Your task to perform on an android device: show emergency info Image 0: 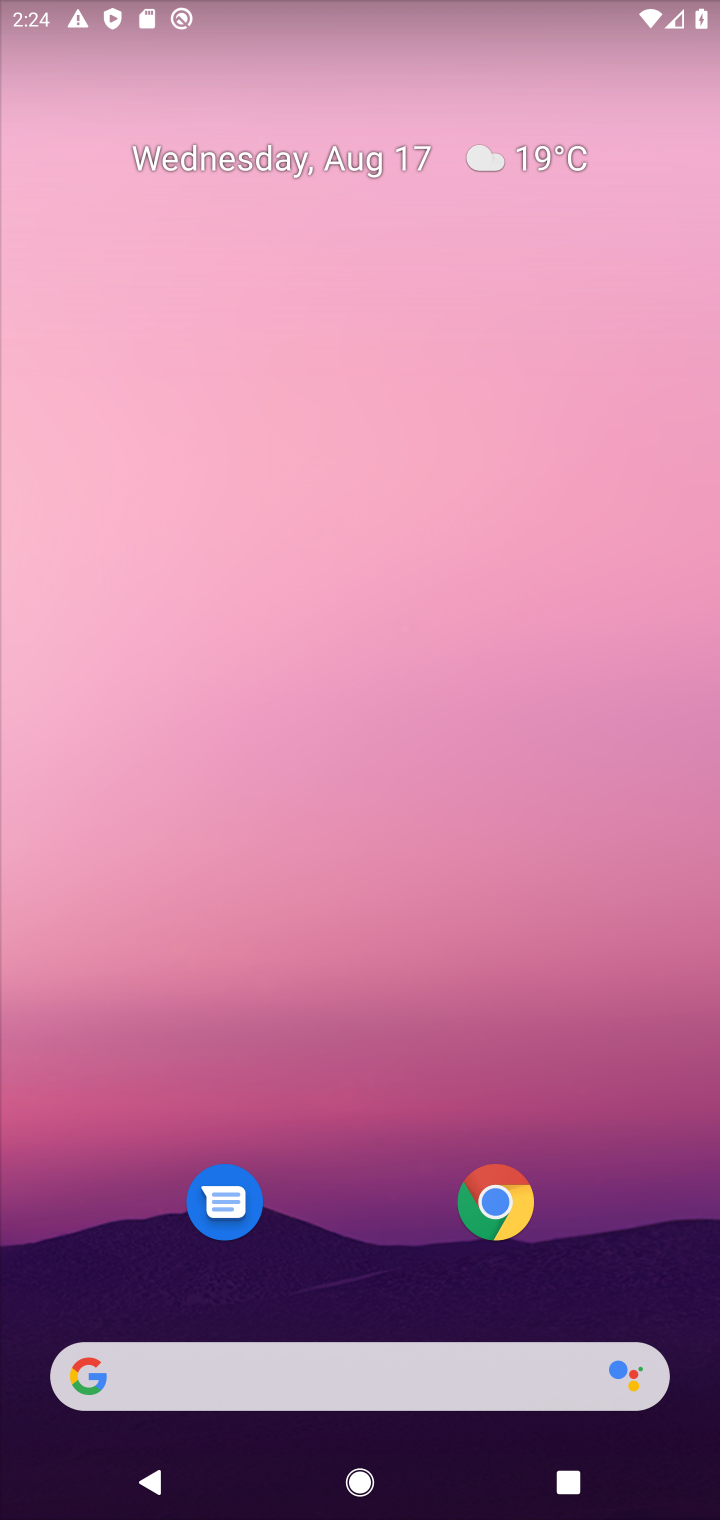
Step 0: drag from (348, 1279) to (311, 75)
Your task to perform on an android device: show emergency info Image 1: 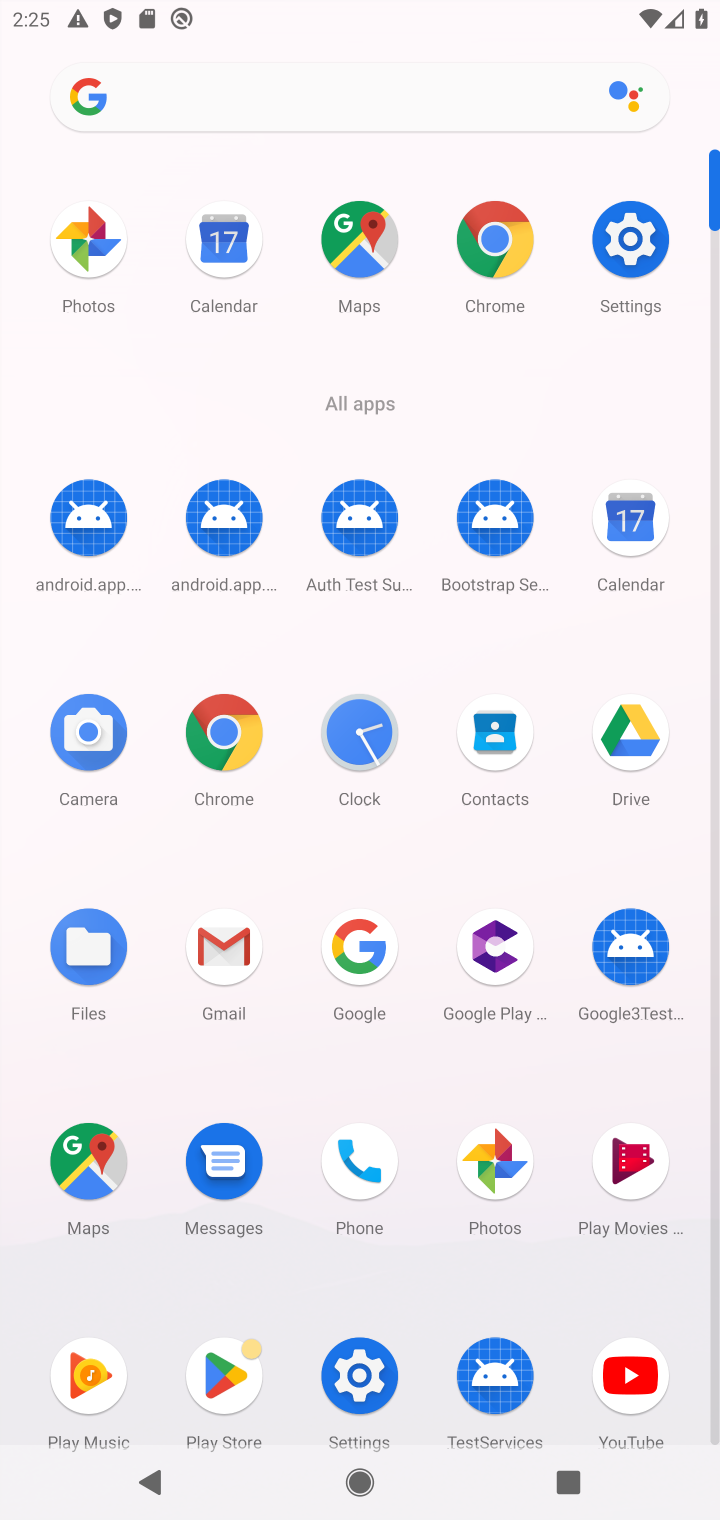
Step 1: drag from (267, 1240) to (361, 397)
Your task to perform on an android device: show emergency info Image 2: 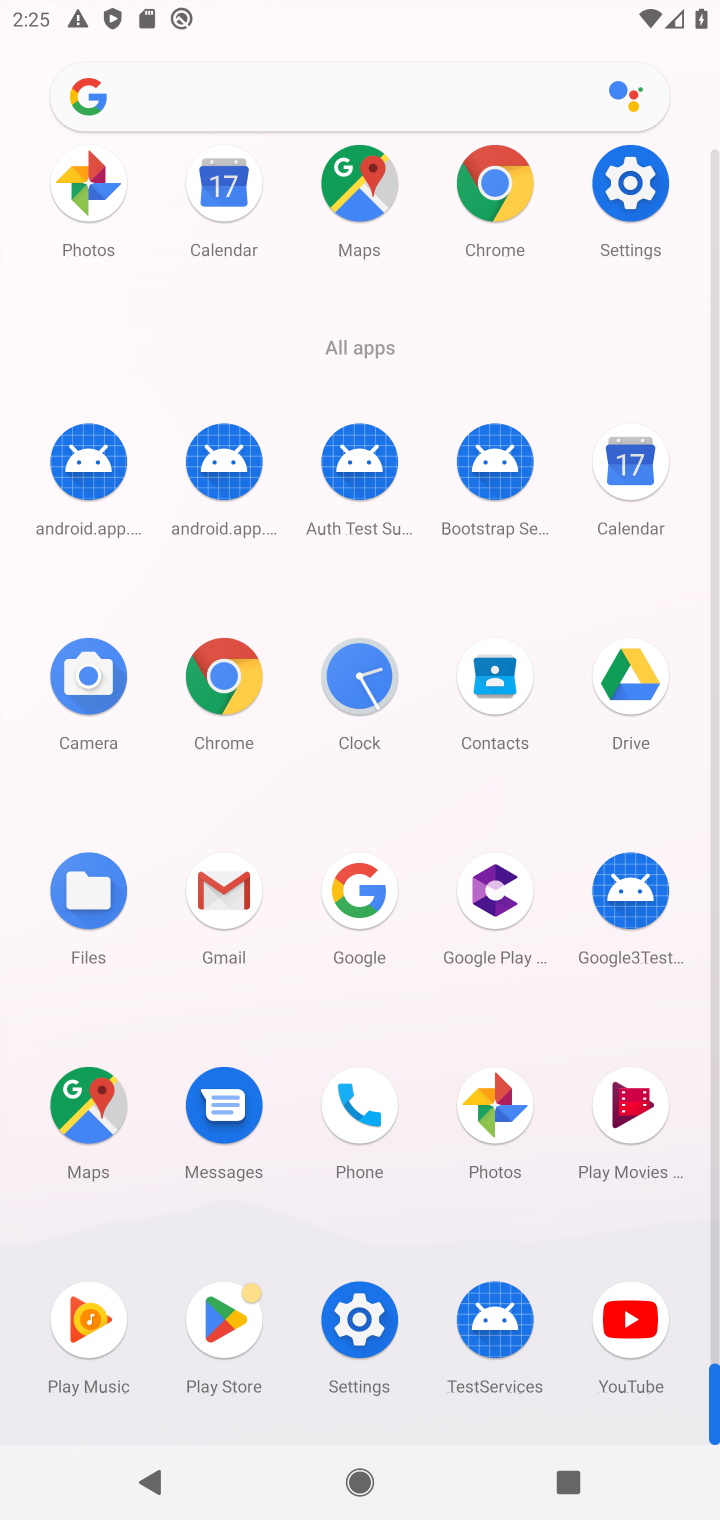
Step 2: click (350, 1317)
Your task to perform on an android device: show emergency info Image 3: 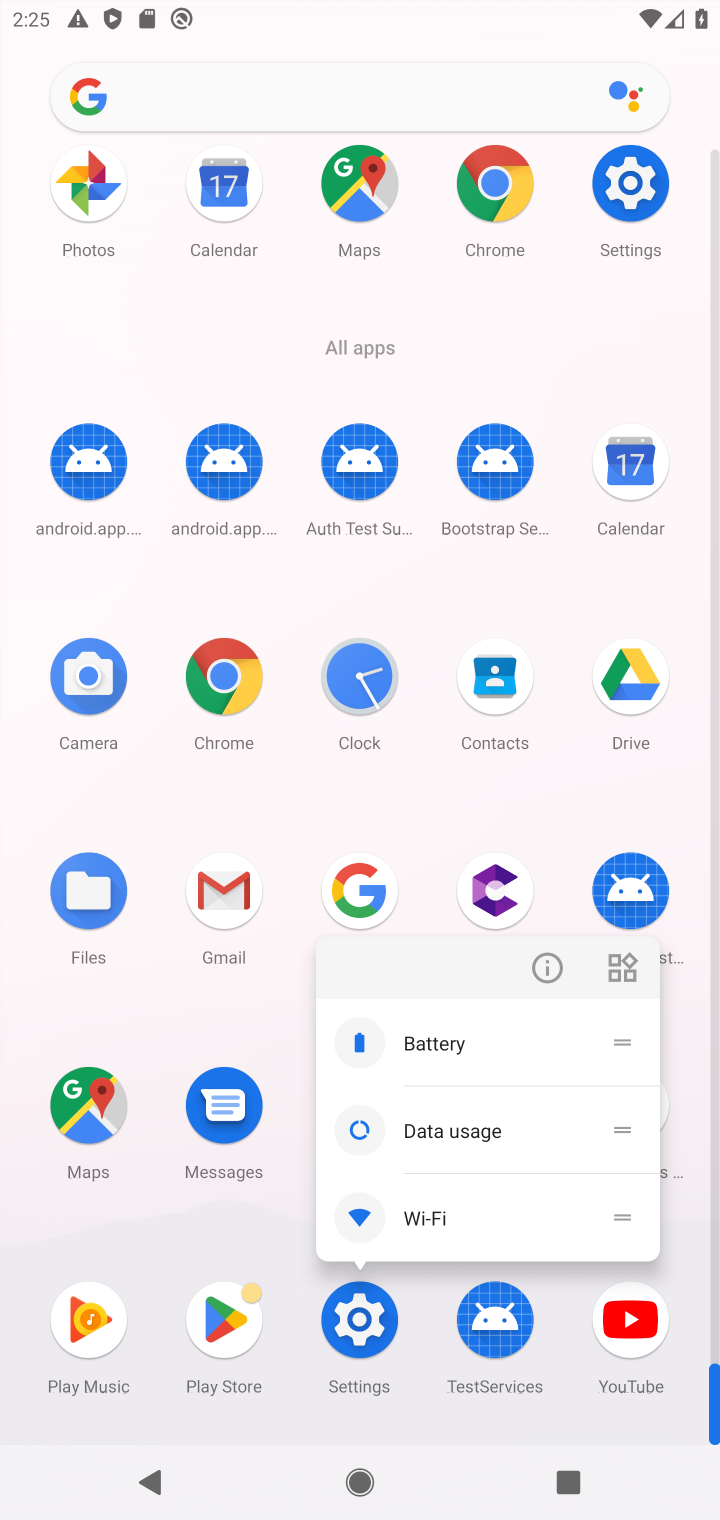
Step 3: click (358, 1336)
Your task to perform on an android device: show emergency info Image 4: 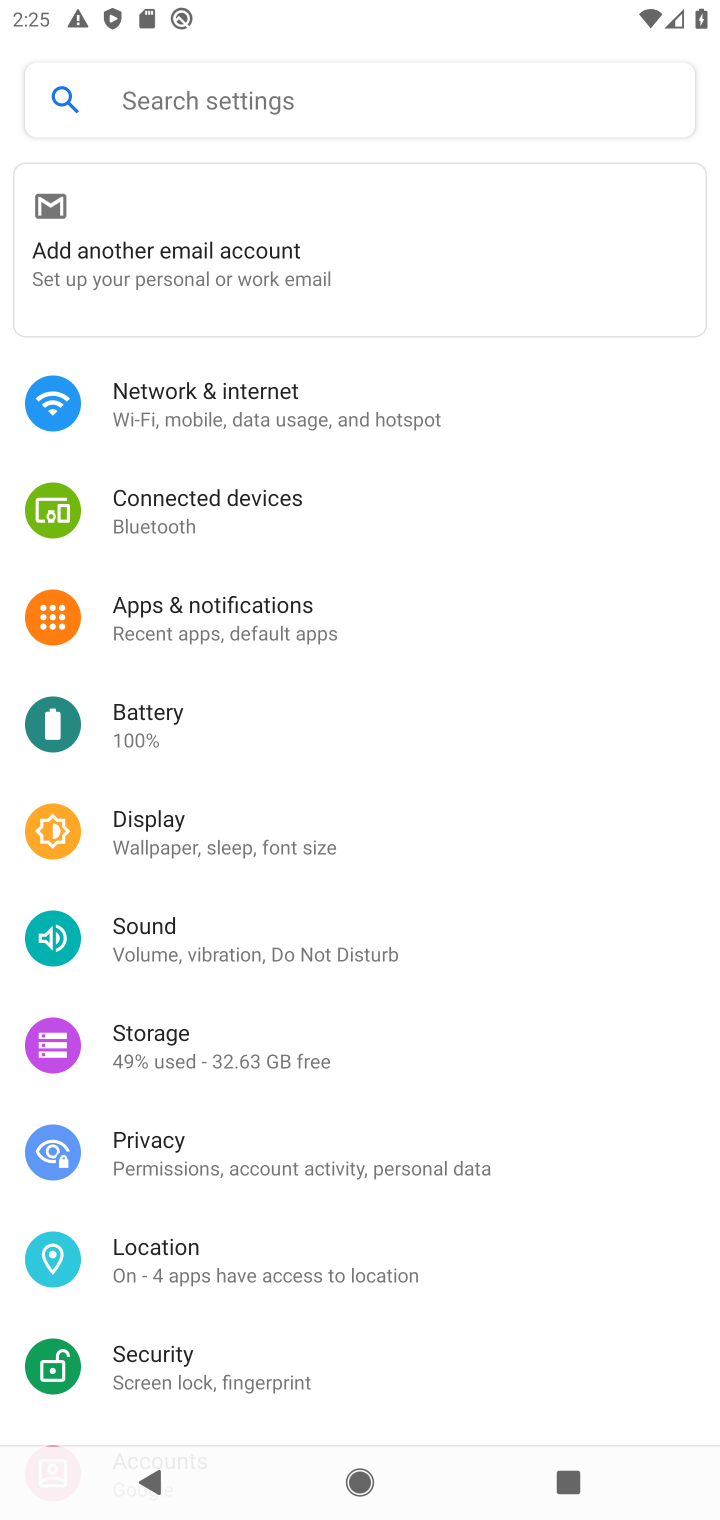
Step 4: drag from (208, 1294) to (298, 394)
Your task to perform on an android device: show emergency info Image 5: 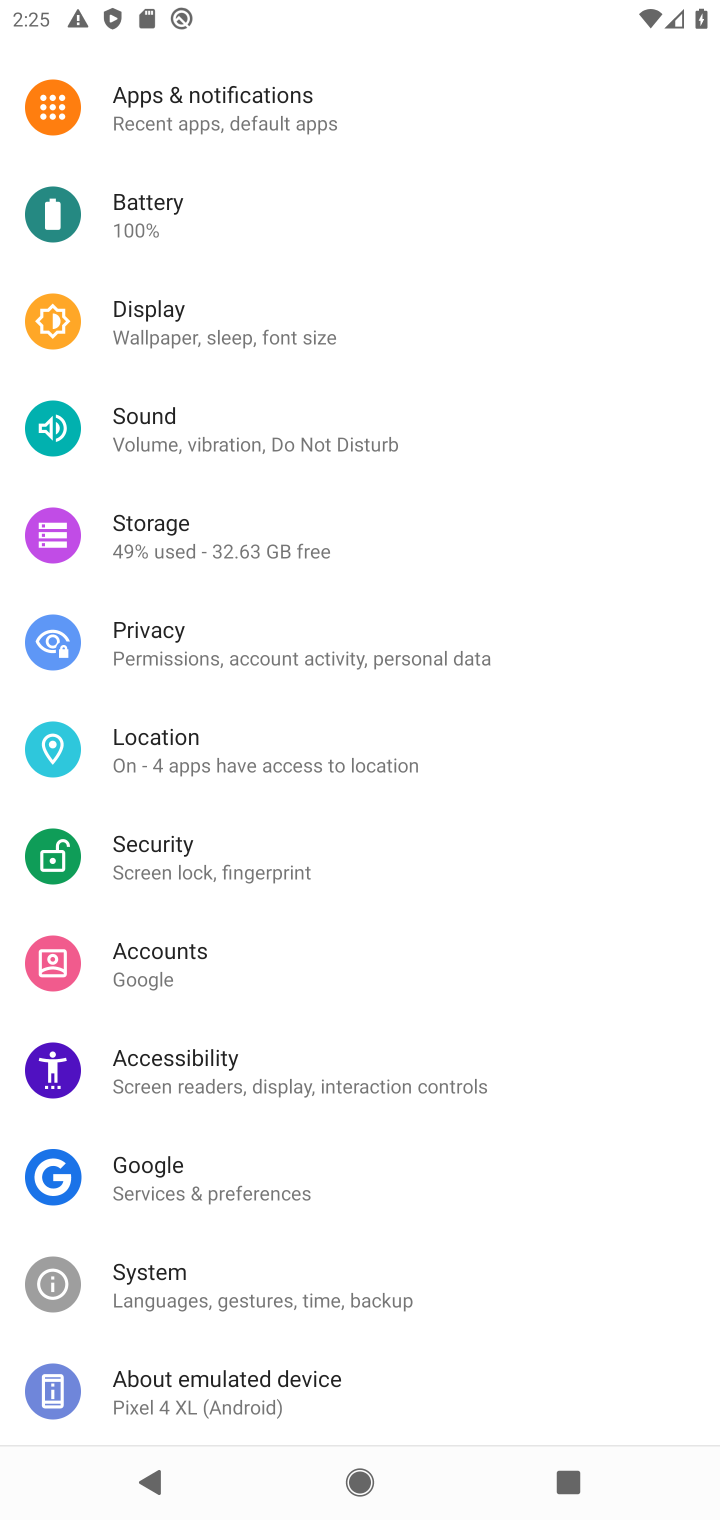
Step 5: drag from (143, 1128) to (277, 97)
Your task to perform on an android device: show emergency info Image 6: 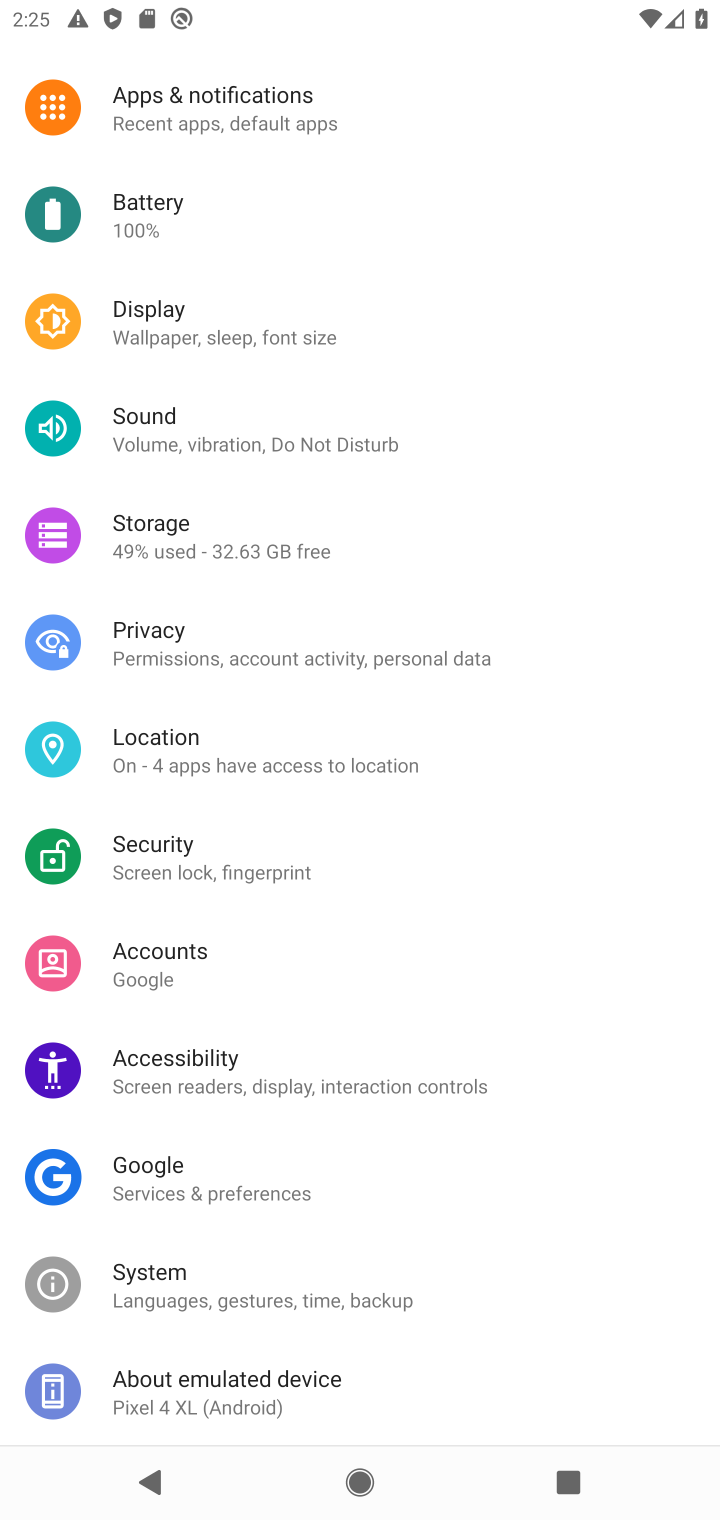
Step 6: drag from (214, 1315) to (223, 1063)
Your task to perform on an android device: show emergency info Image 7: 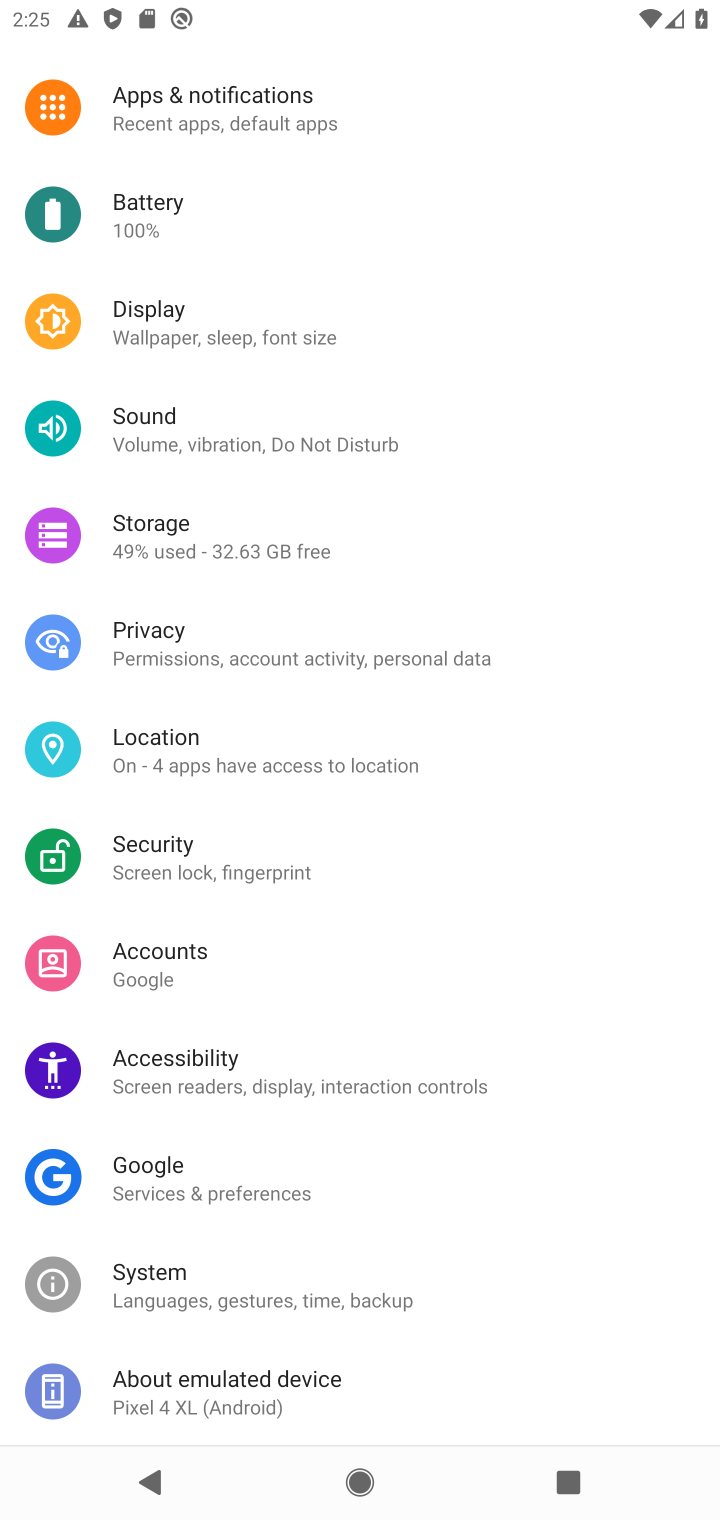
Step 7: click (152, 1391)
Your task to perform on an android device: show emergency info Image 8: 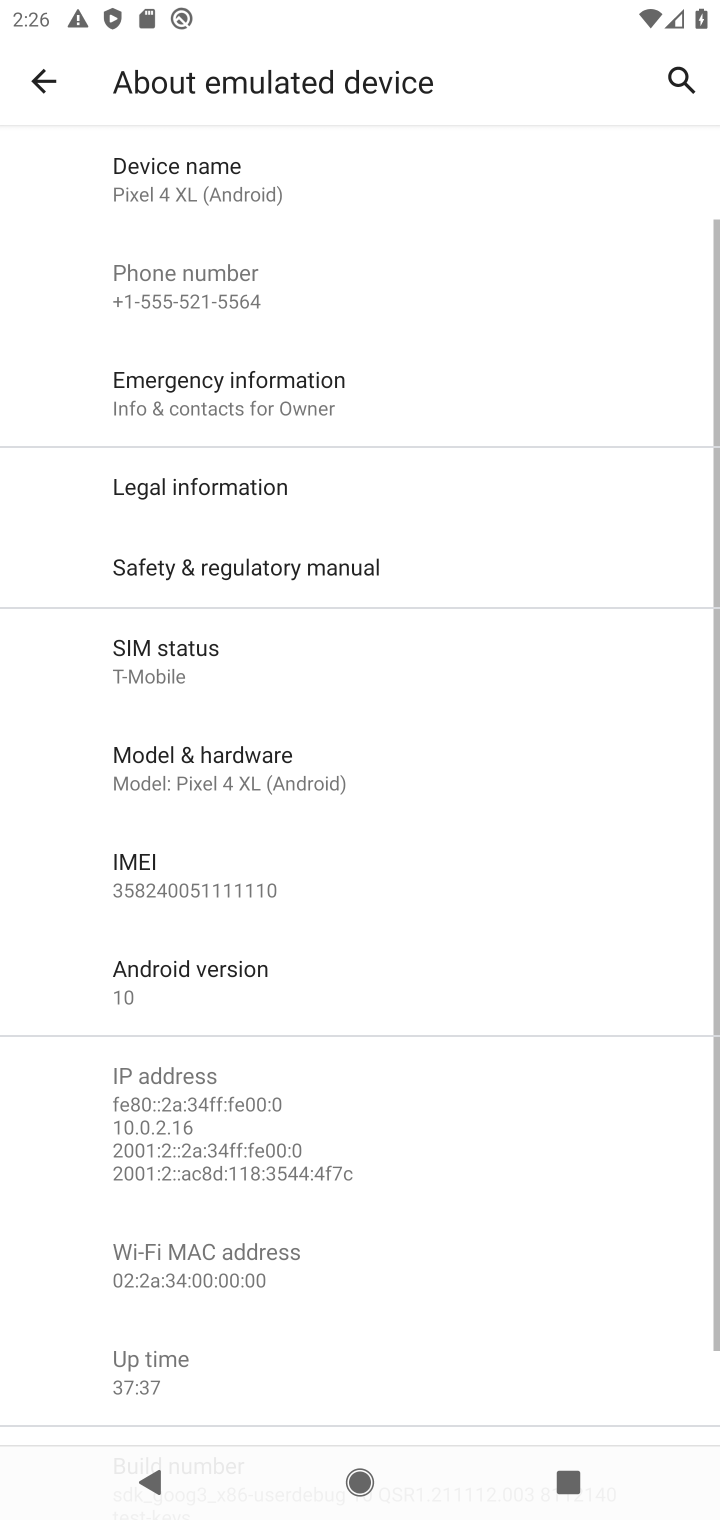
Step 8: click (290, 384)
Your task to perform on an android device: show emergency info Image 9: 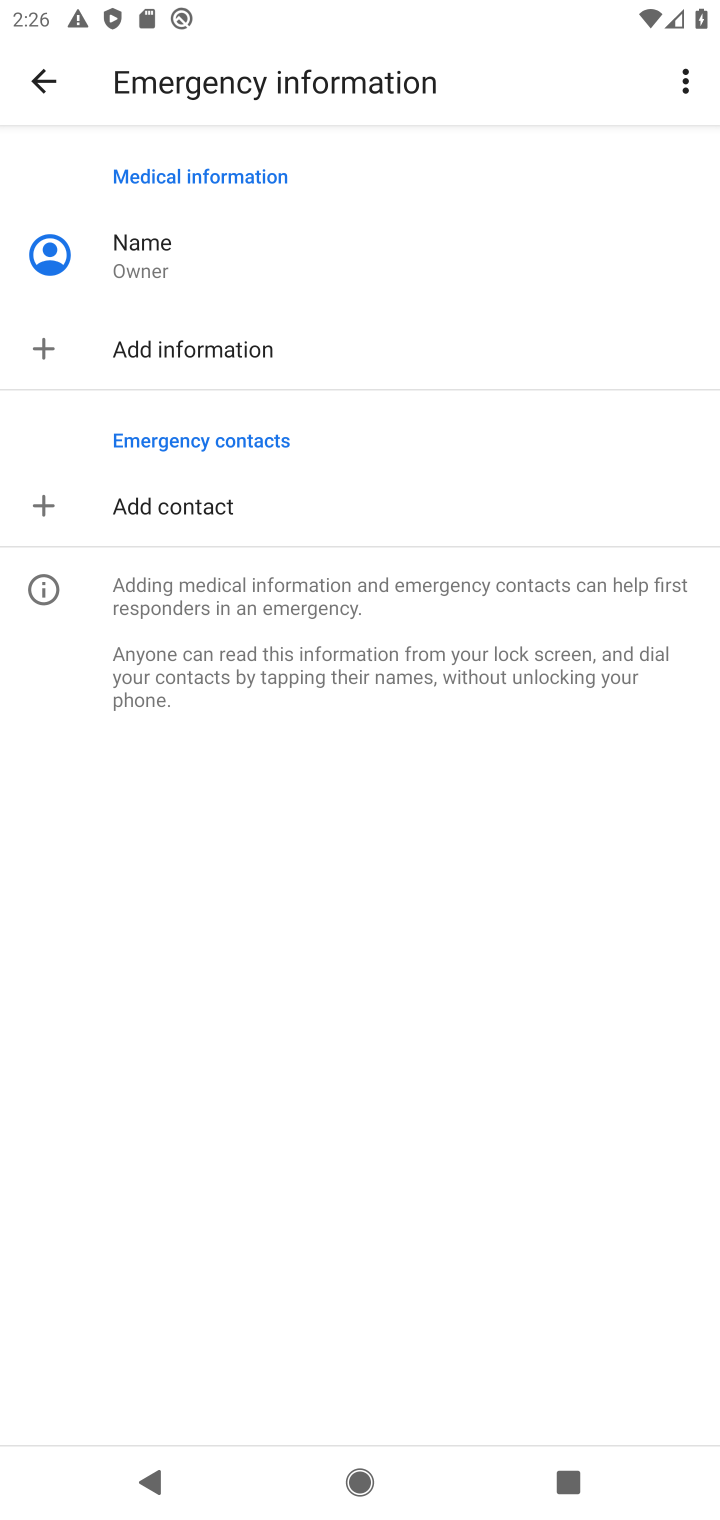
Step 9: task complete